Your task to perform on an android device: Open notification settings Image 0: 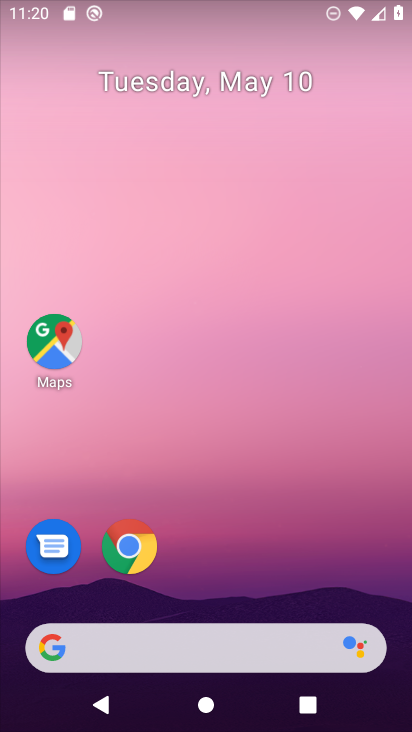
Step 0: drag from (260, 539) to (267, 161)
Your task to perform on an android device: Open notification settings Image 1: 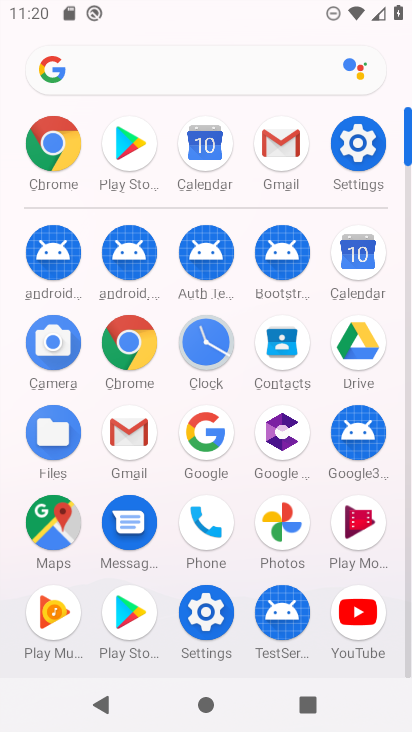
Step 1: click (353, 142)
Your task to perform on an android device: Open notification settings Image 2: 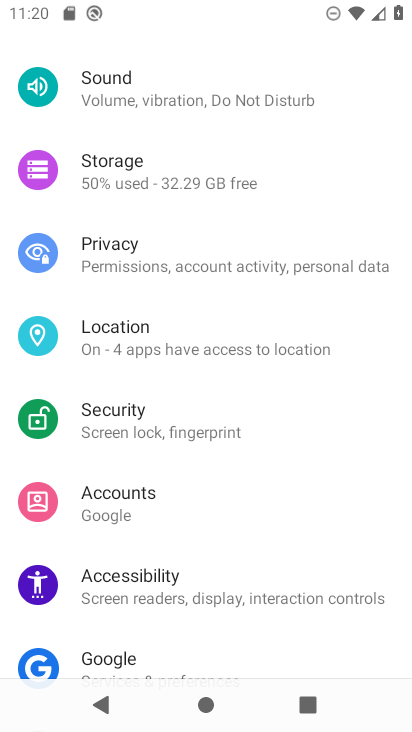
Step 2: drag from (306, 132) to (287, 554)
Your task to perform on an android device: Open notification settings Image 3: 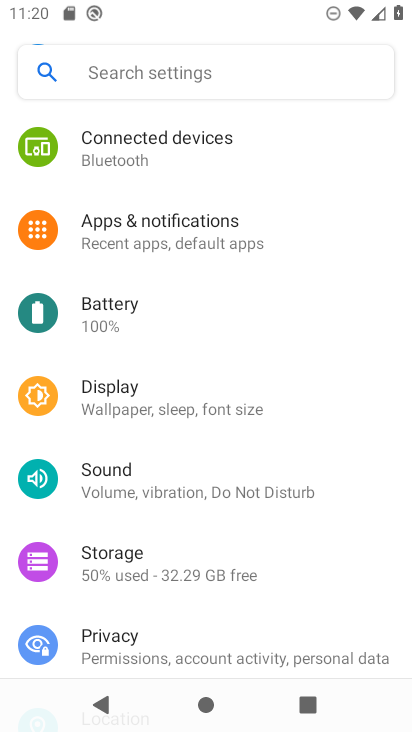
Step 3: click (243, 245)
Your task to perform on an android device: Open notification settings Image 4: 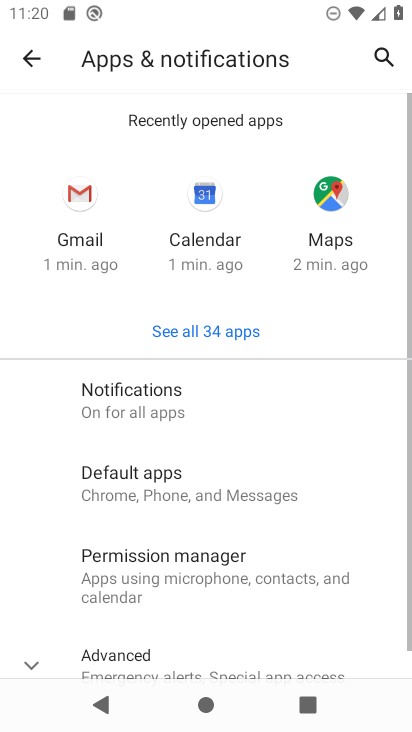
Step 4: click (185, 390)
Your task to perform on an android device: Open notification settings Image 5: 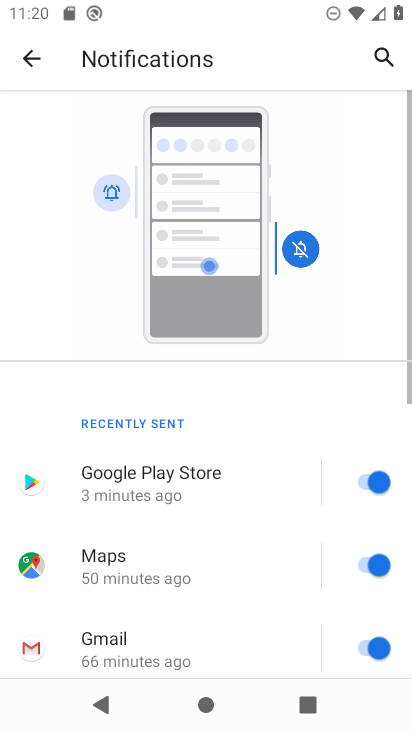
Step 5: task complete